Your task to perform on an android device: add a contact in the contacts app Image 0: 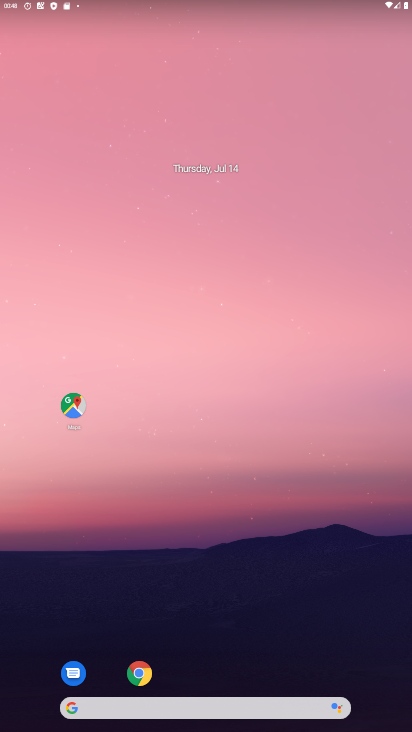
Step 0: drag from (244, 653) to (243, 272)
Your task to perform on an android device: add a contact in the contacts app Image 1: 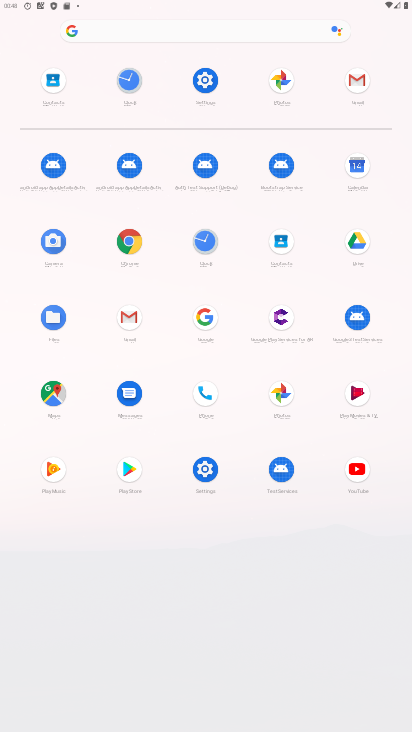
Step 1: click (285, 248)
Your task to perform on an android device: add a contact in the contacts app Image 2: 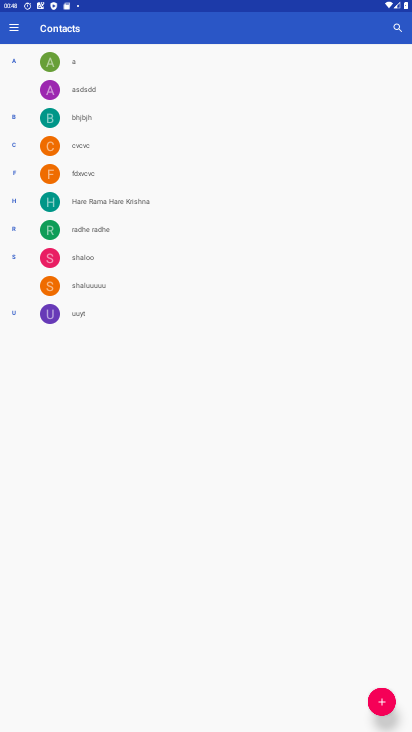
Step 2: click (373, 704)
Your task to perform on an android device: add a contact in the contacts app Image 3: 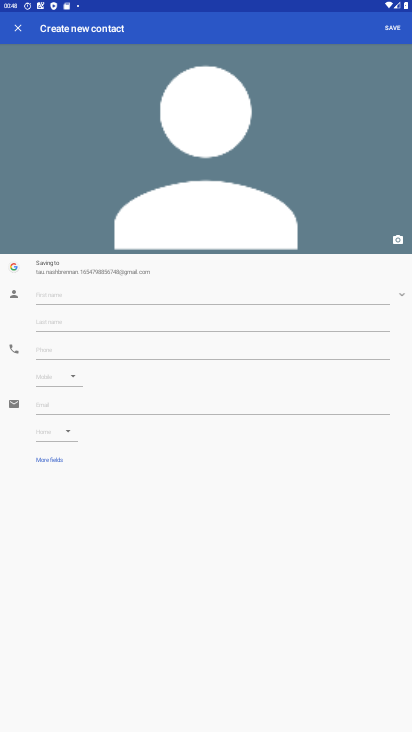
Step 3: type "htthy"
Your task to perform on an android device: add a contact in the contacts app Image 4: 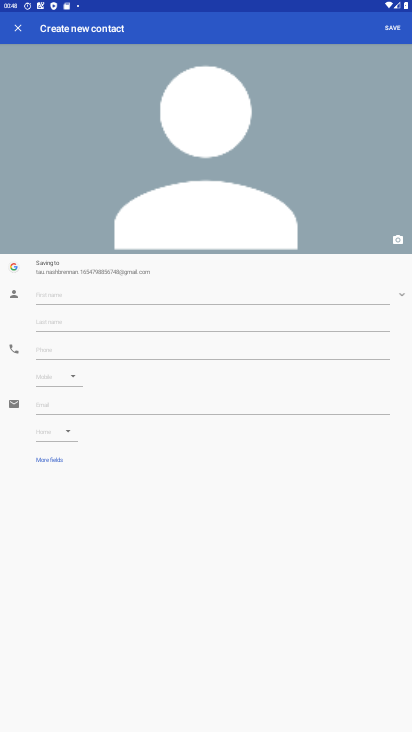
Step 4: click (66, 289)
Your task to perform on an android device: add a contact in the contacts app Image 5: 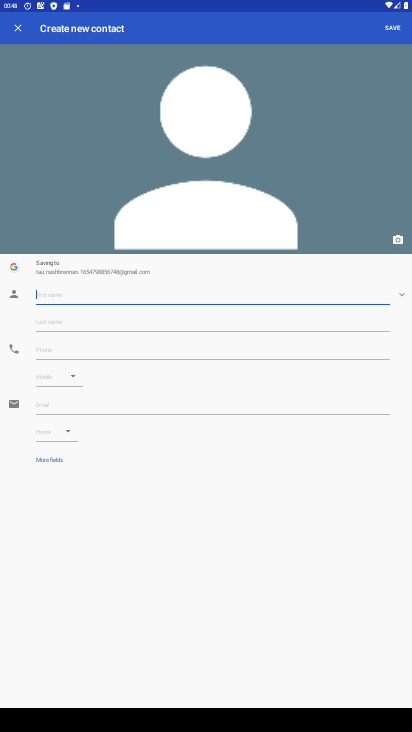
Step 5: type "fgjgyj"
Your task to perform on an android device: add a contact in the contacts app Image 6: 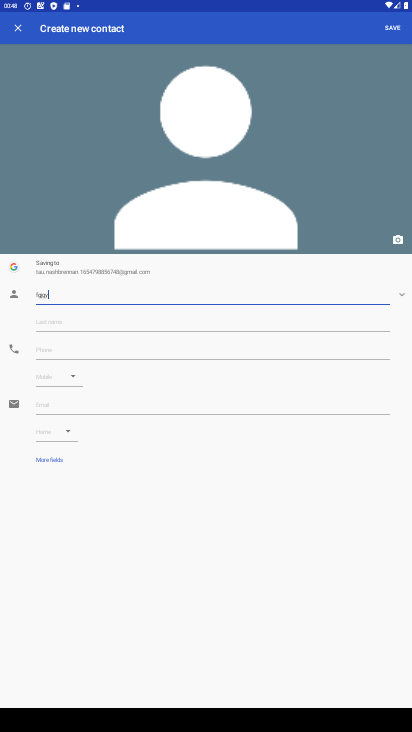
Step 6: click (60, 353)
Your task to perform on an android device: add a contact in the contacts app Image 7: 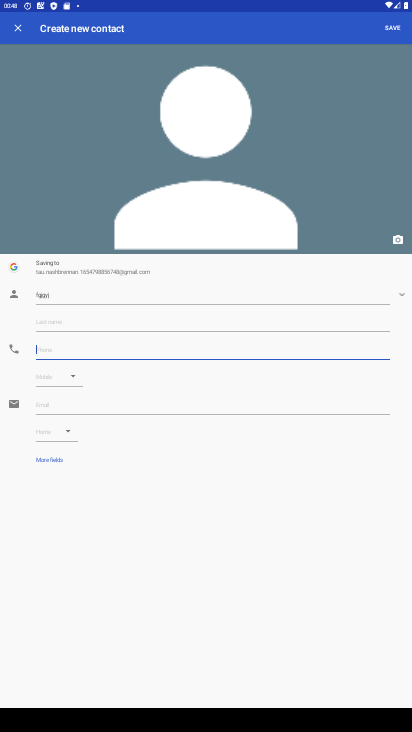
Step 7: type "8658567546436"
Your task to perform on an android device: add a contact in the contacts app Image 8: 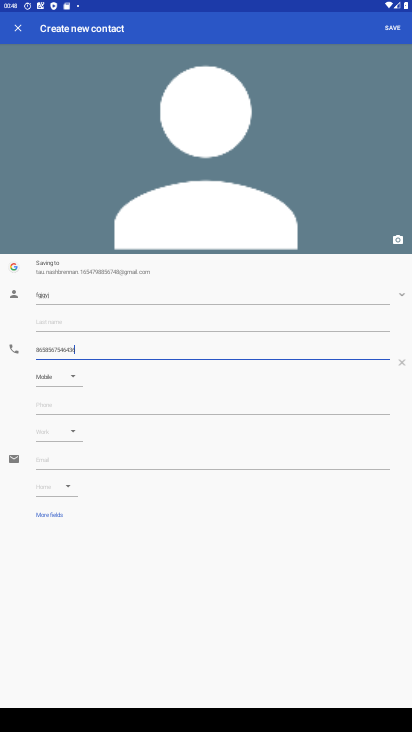
Step 8: click (386, 33)
Your task to perform on an android device: add a contact in the contacts app Image 9: 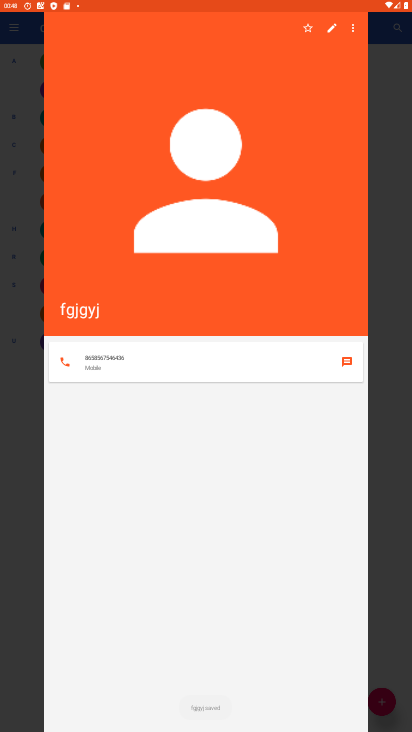
Step 9: task complete